Your task to perform on an android device: Toggle the flashlight Image 0: 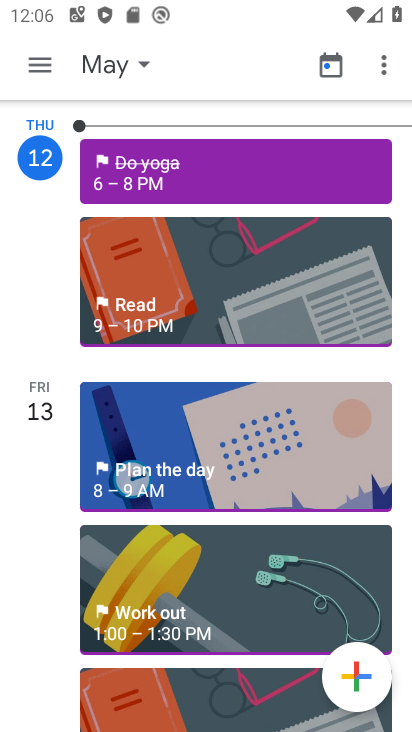
Step 0: press home button
Your task to perform on an android device: Toggle the flashlight Image 1: 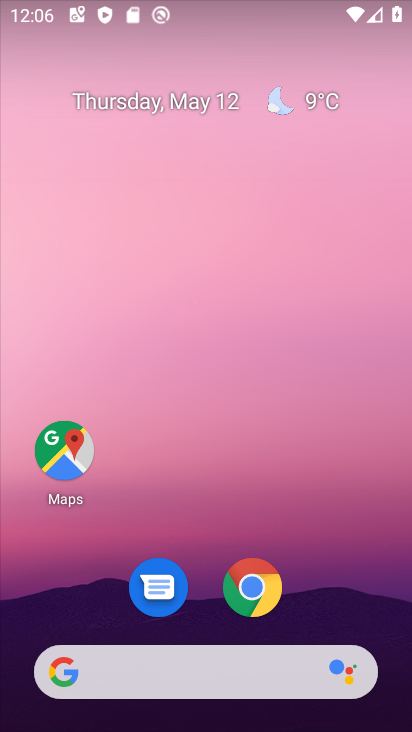
Step 1: drag from (290, 346) to (278, 267)
Your task to perform on an android device: Toggle the flashlight Image 2: 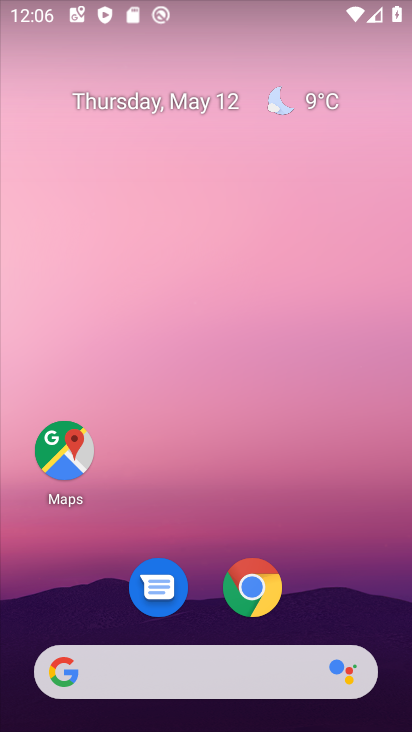
Step 2: drag from (319, 609) to (313, 284)
Your task to perform on an android device: Toggle the flashlight Image 3: 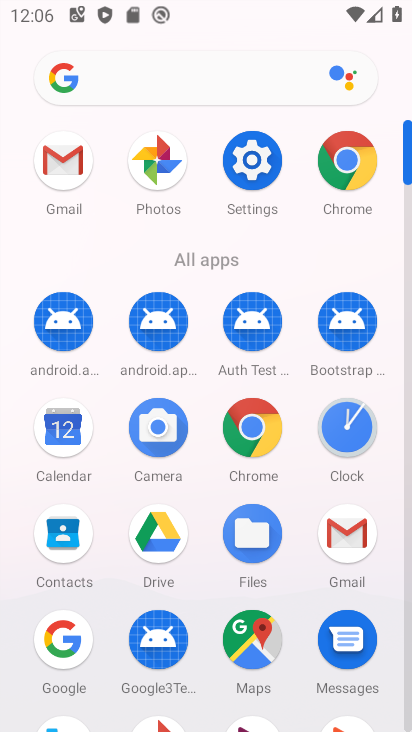
Step 3: click (250, 152)
Your task to perform on an android device: Toggle the flashlight Image 4: 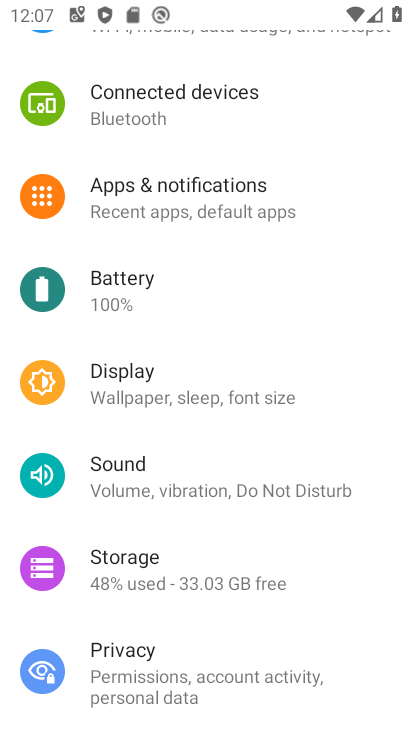
Step 4: task complete